Your task to perform on an android device: What's the weather like in Chicago? Image 0: 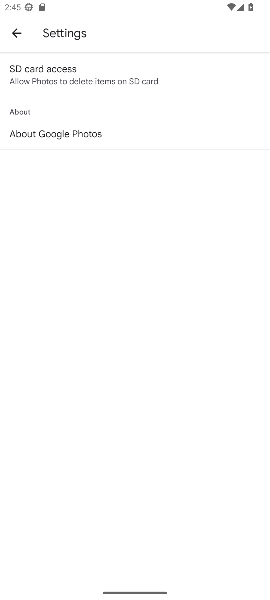
Step 0: press home button
Your task to perform on an android device: What's the weather like in Chicago? Image 1: 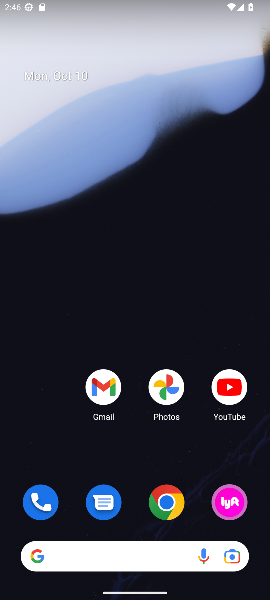
Step 1: click (152, 480)
Your task to perform on an android device: What's the weather like in Chicago? Image 2: 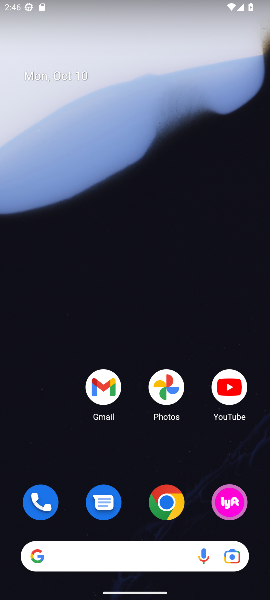
Step 2: click (171, 505)
Your task to perform on an android device: What's the weather like in Chicago? Image 3: 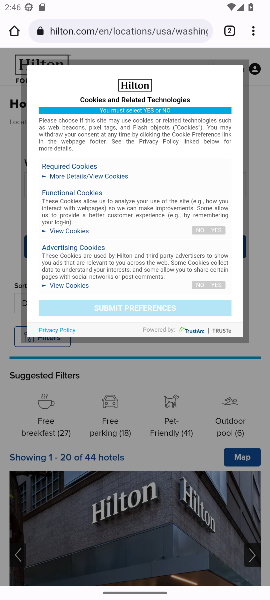
Step 3: click (88, 24)
Your task to perform on an android device: What's the weather like in Chicago? Image 4: 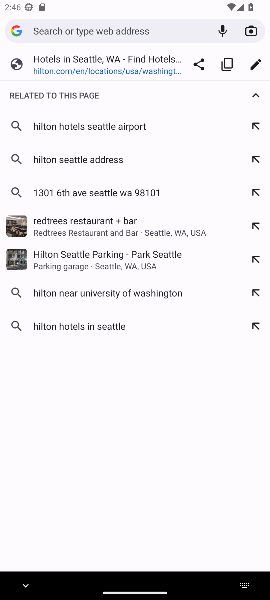
Step 4: type "weather in chicago"
Your task to perform on an android device: What's the weather like in Chicago? Image 5: 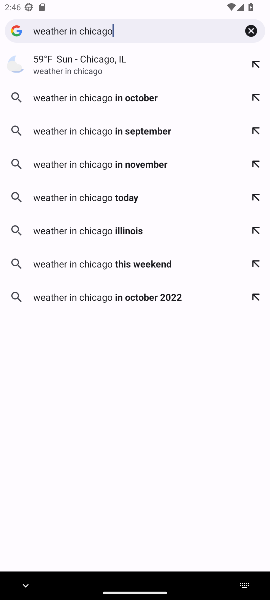
Step 5: click (97, 52)
Your task to perform on an android device: What's the weather like in Chicago? Image 6: 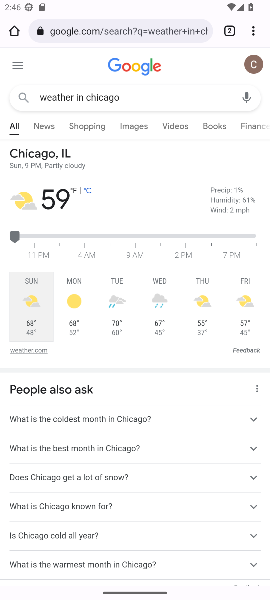
Step 6: task complete